Your task to perform on an android device: Open Chrome and go to settings Image 0: 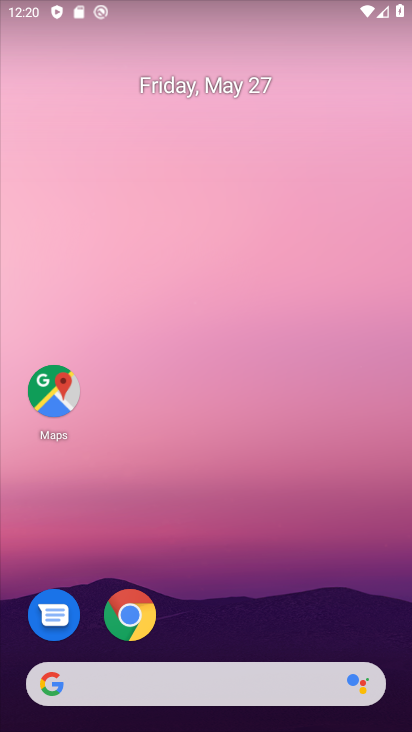
Step 0: press home button
Your task to perform on an android device: Open Chrome and go to settings Image 1: 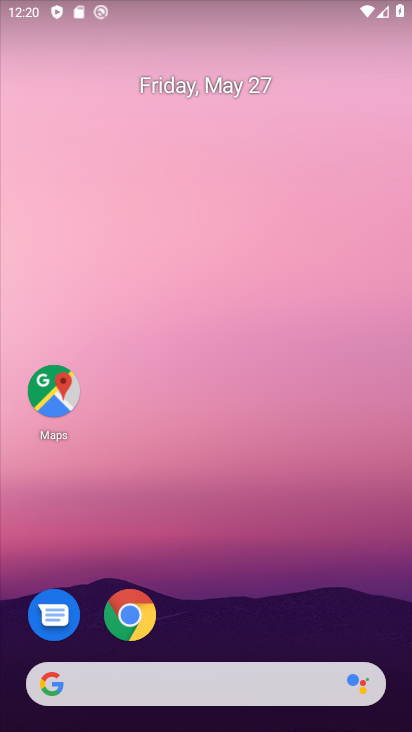
Step 1: click (132, 617)
Your task to perform on an android device: Open Chrome and go to settings Image 2: 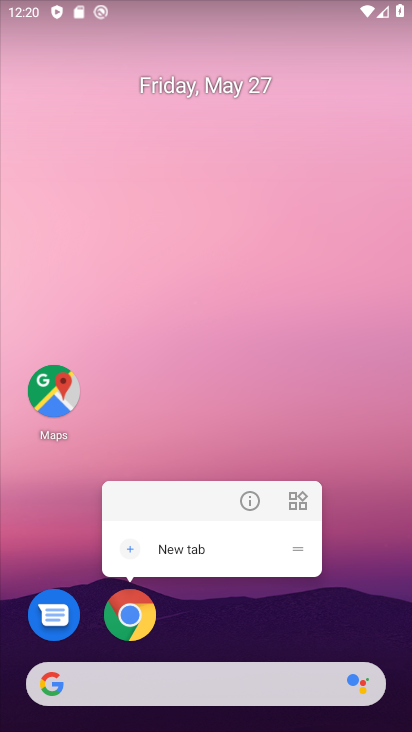
Step 2: click (130, 621)
Your task to perform on an android device: Open Chrome and go to settings Image 3: 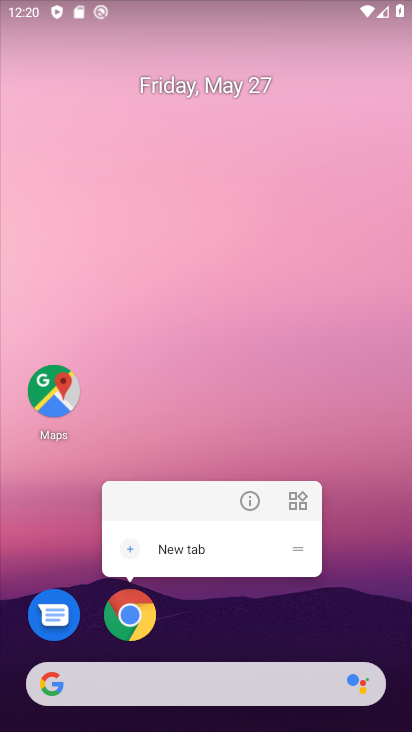
Step 3: click (209, 640)
Your task to perform on an android device: Open Chrome and go to settings Image 4: 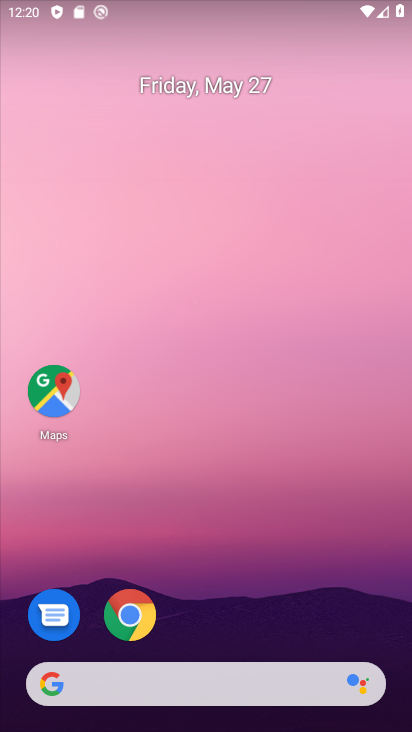
Step 4: drag from (264, 622) to (167, 6)
Your task to perform on an android device: Open Chrome and go to settings Image 5: 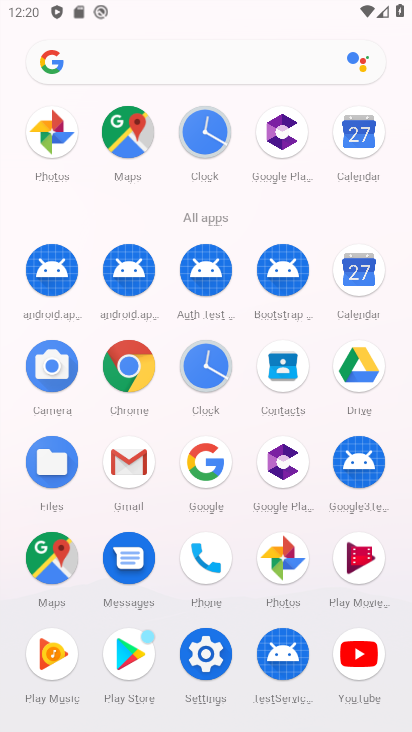
Step 5: click (129, 369)
Your task to perform on an android device: Open Chrome and go to settings Image 6: 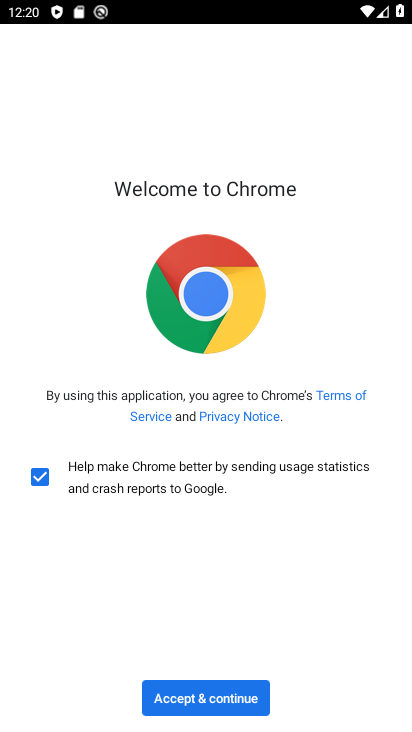
Step 6: click (194, 696)
Your task to perform on an android device: Open Chrome and go to settings Image 7: 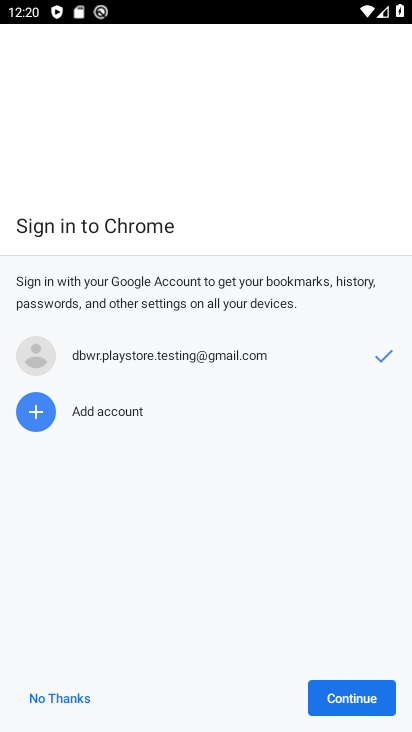
Step 7: click (339, 699)
Your task to perform on an android device: Open Chrome and go to settings Image 8: 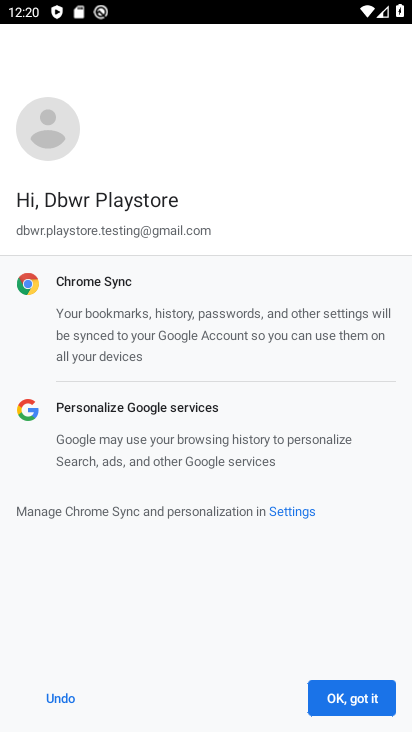
Step 8: click (339, 699)
Your task to perform on an android device: Open Chrome and go to settings Image 9: 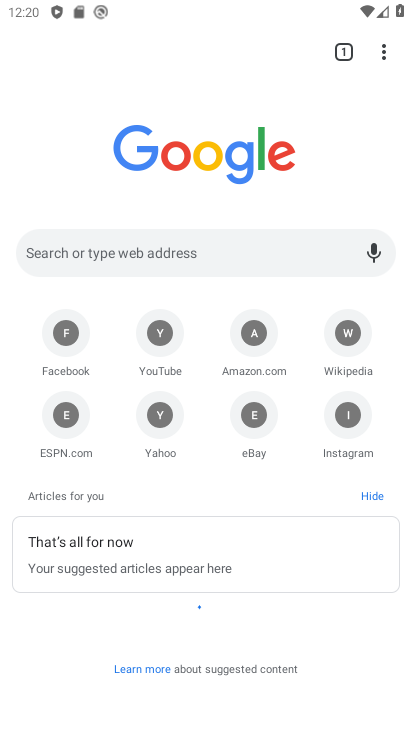
Step 9: task complete